Your task to perform on an android device: Go to Android settings Image 0: 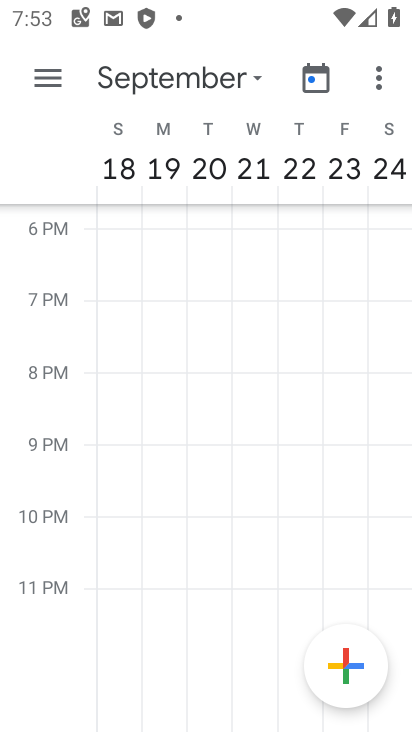
Step 0: press home button
Your task to perform on an android device: Go to Android settings Image 1: 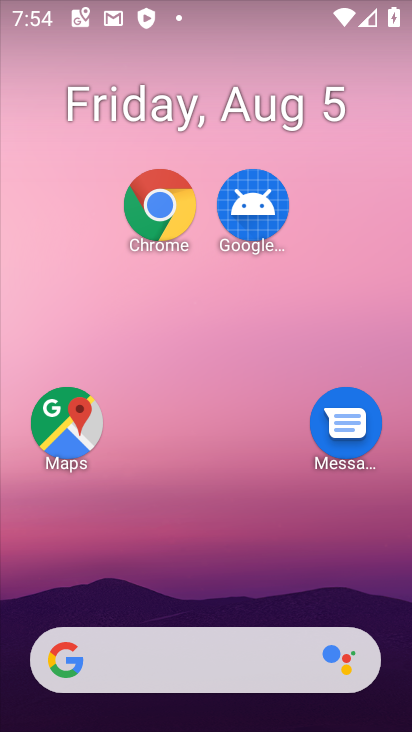
Step 1: drag from (291, 585) to (219, 60)
Your task to perform on an android device: Go to Android settings Image 2: 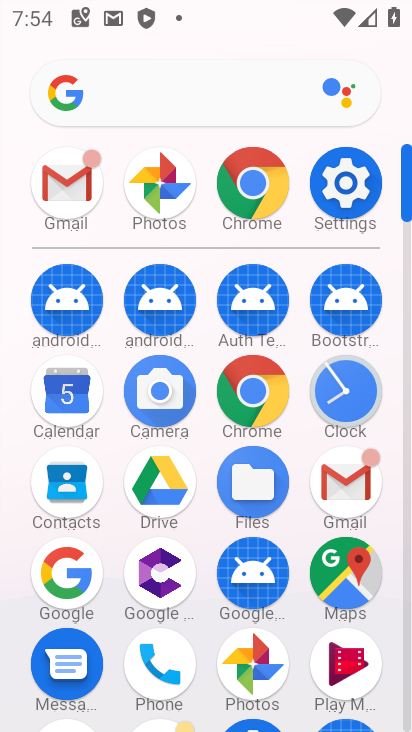
Step 2: click (373, 158)
Your task to perform on an android device: Go to Android settings Image 3: 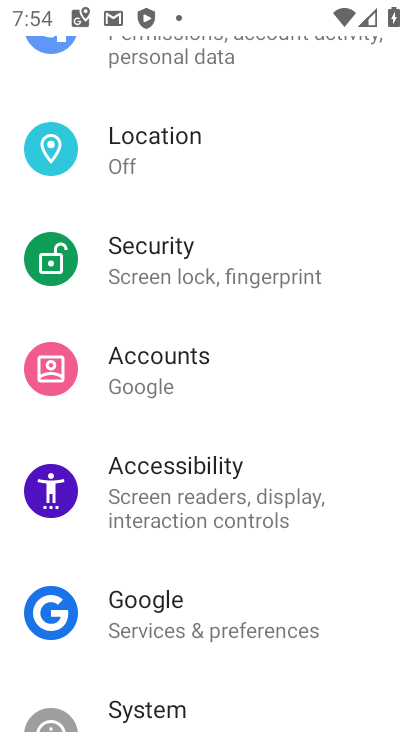
Step 3: task complete